Your task to perform on an android device: all mails in gmail Image 0: 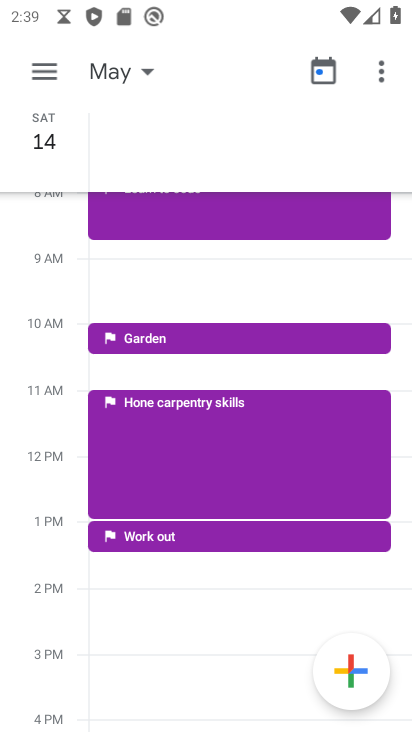
Step 0: press home button
Your task to perform on an android device: all mails in gmail Image 1: 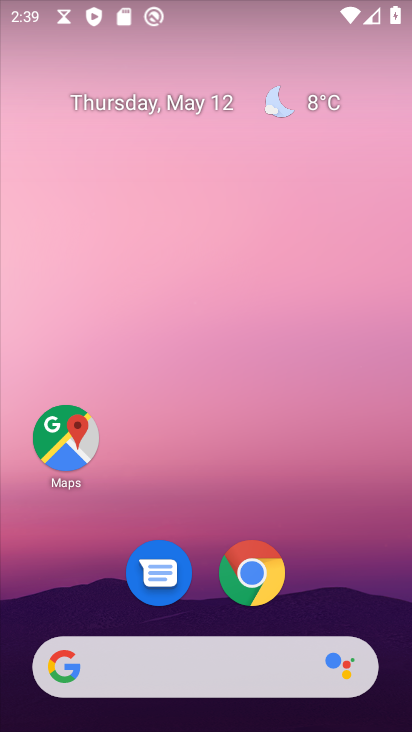
Step 1: drag from (296, 577) to (310, 176)
Your task to perform on an android device: all mails in gmail Image 2: 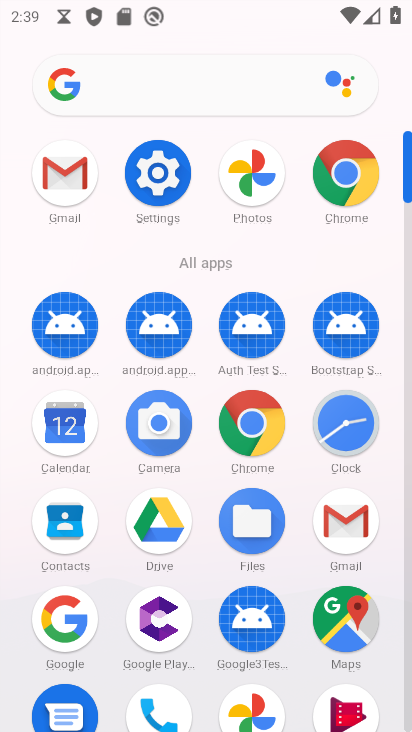
Step 2: click (356, 521)
Your task to perform on an android device: all mails in gmail Image 3: 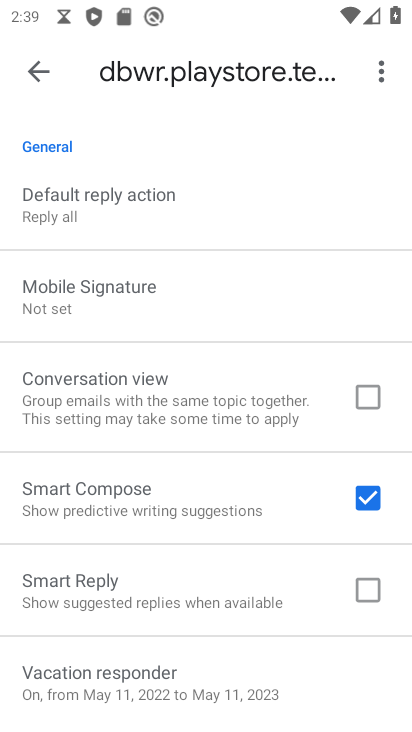
Step 3: click (42, 68)
Your task to perform on an android device: all mails in gmail Image 4: 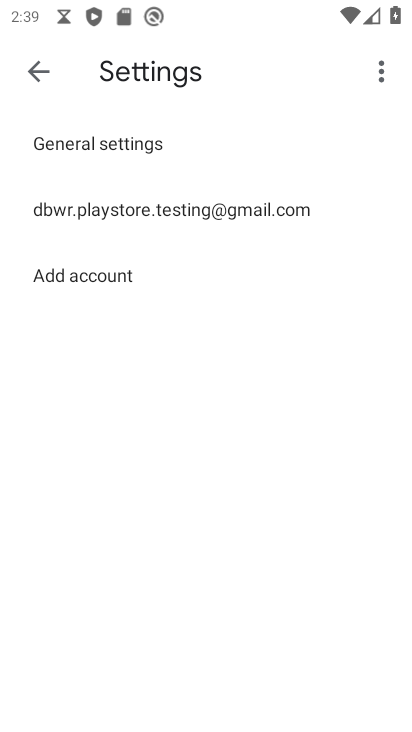
Step 4: click (45, 75)
Your task to perform on an android device: all mails in gmail Image 5: 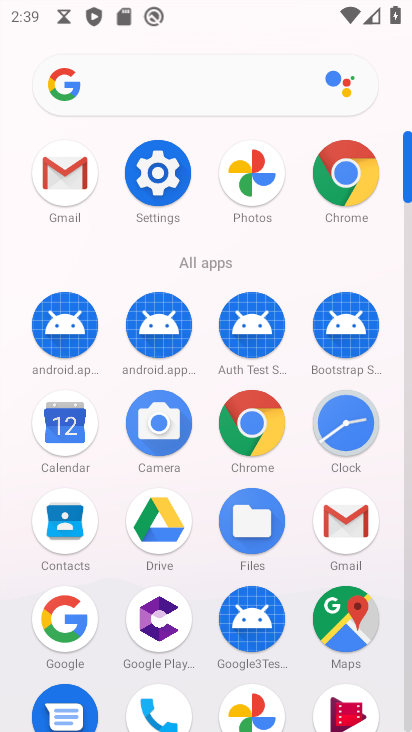
Step 5: click (346, 522)
Your task to perform on an android device: all mails in gmail Image 6: 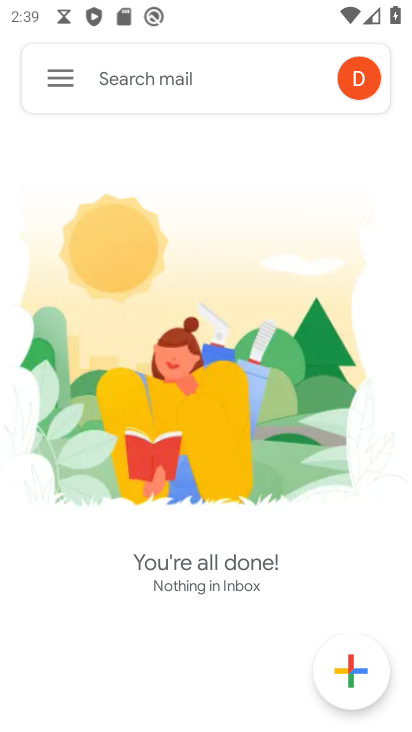
Step 6: click (72, 79)
Your task to perform on an android device: all mails in gmail Image 7: 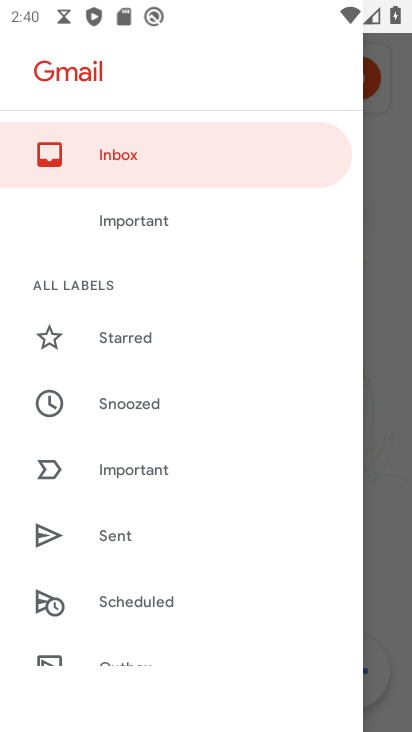
Step 7: drag from (184, 528) to (198, 114)
Your task to perform on an android device: all mails in gmail Image 8: 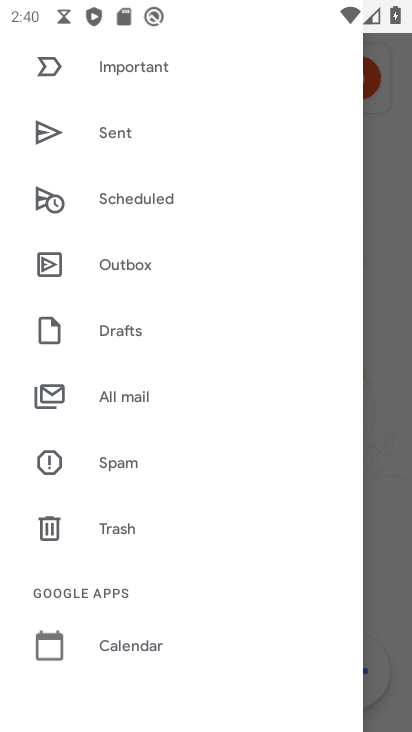
Step 8: click (132, 387)
Your task to perform on an android device: all mails in gmail Image 9: 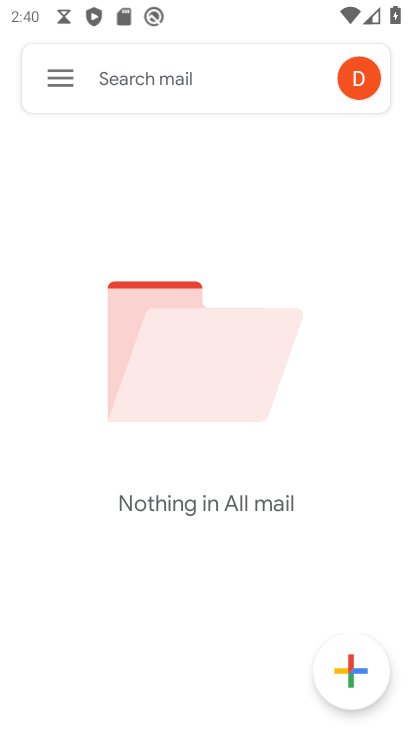
Step 9: task complete